Your task to perform on an android device: Add razer nari to the cart on bestbuy Image 0: 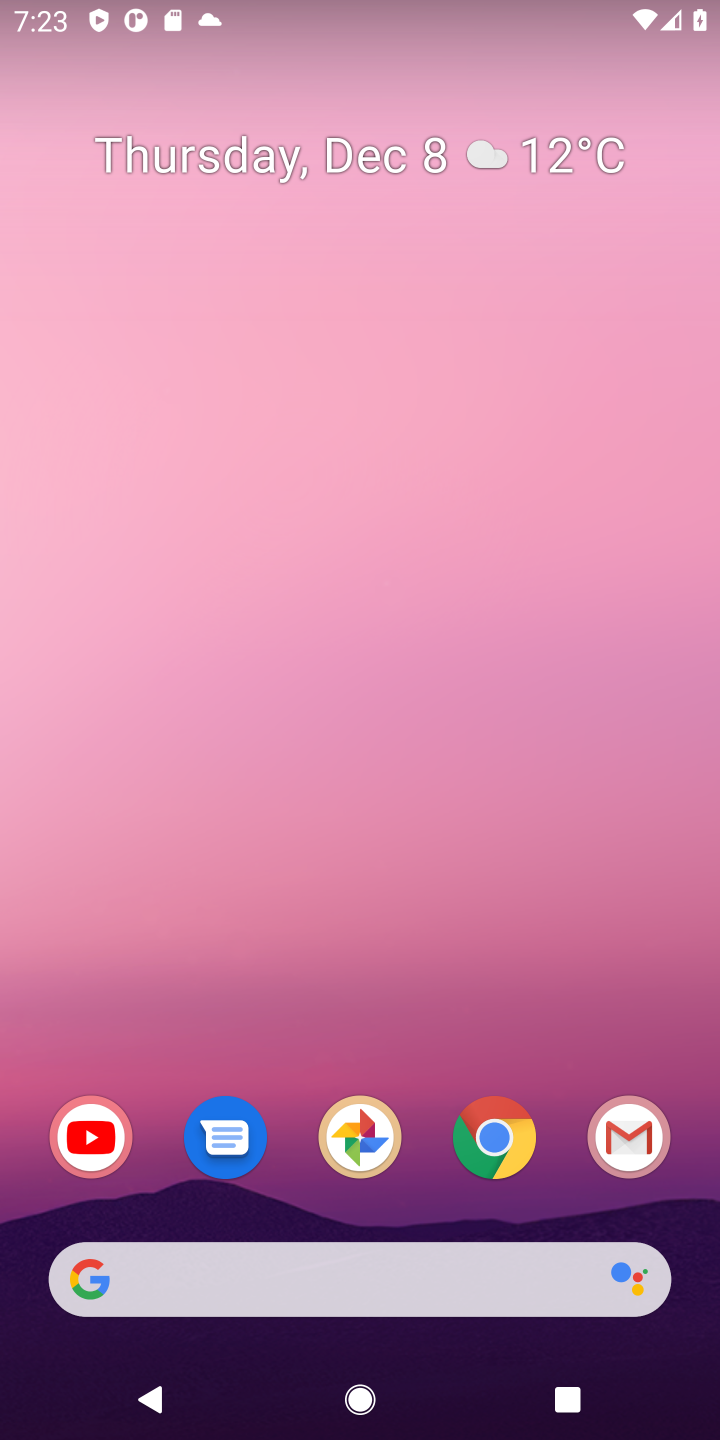
Step 0: click (477, 1140)
Your task to perform on an android device: Add razer nari to the cart on bestbuy Image 1: 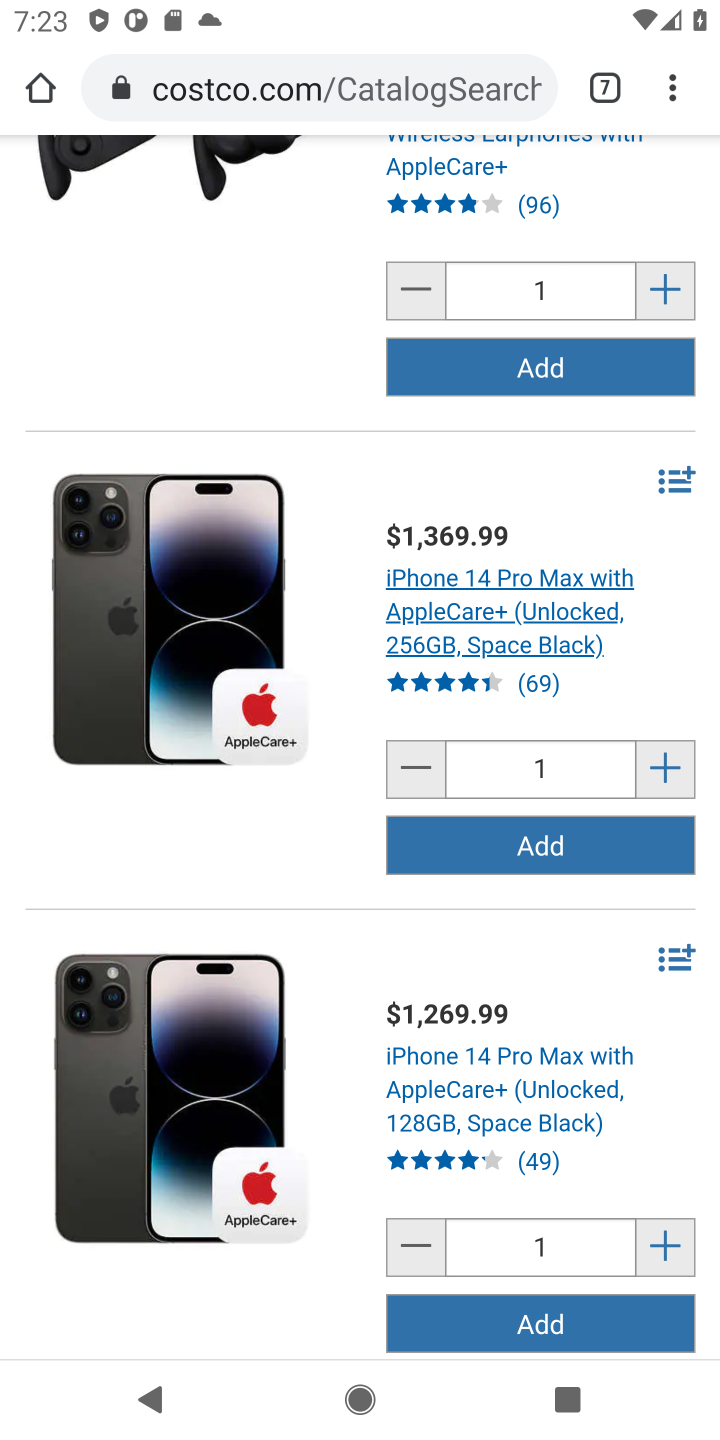
Step 1: click (603, 97)
Your task to perform on an android device: Add razer nari to the cart on bestbuy Image 2: 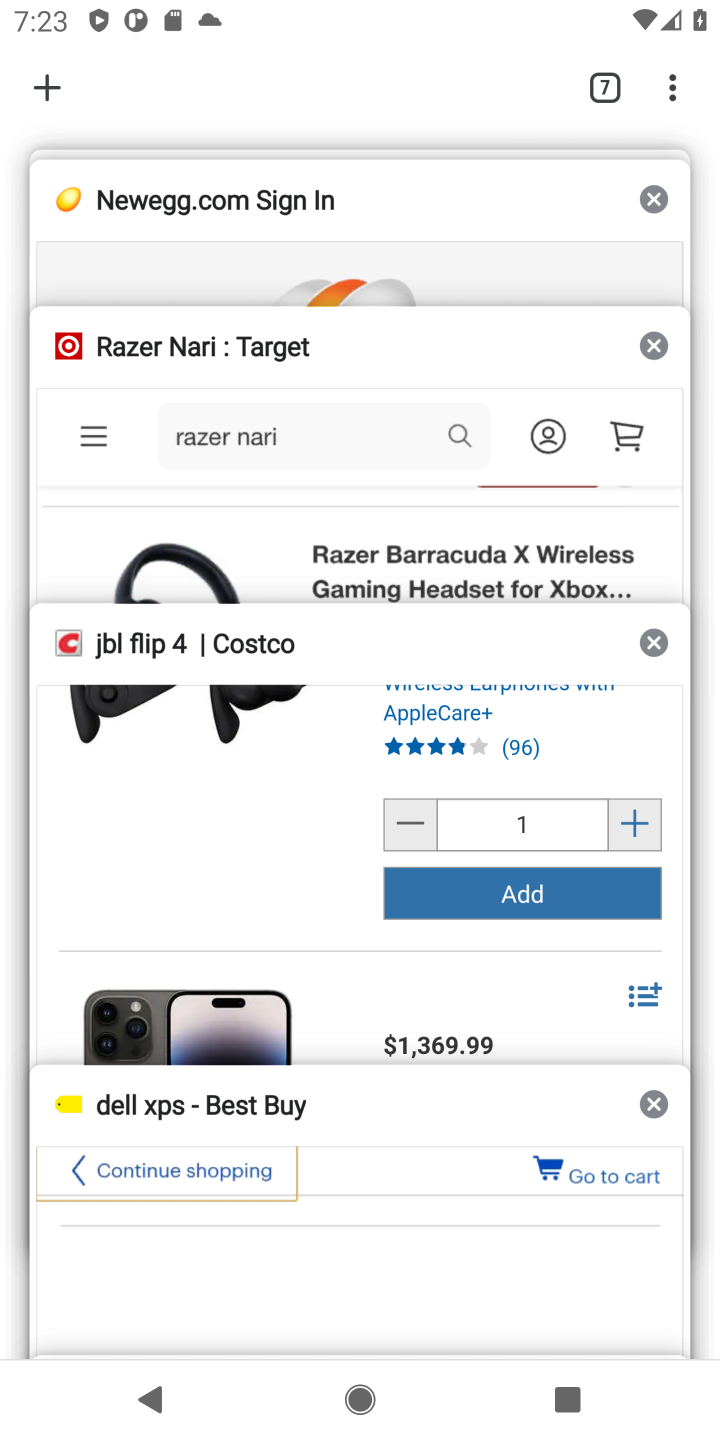
Step 2: click (207, 1143)
Your task to perform on an android device: Add razer nari to the cart on bestbuy Image 3: 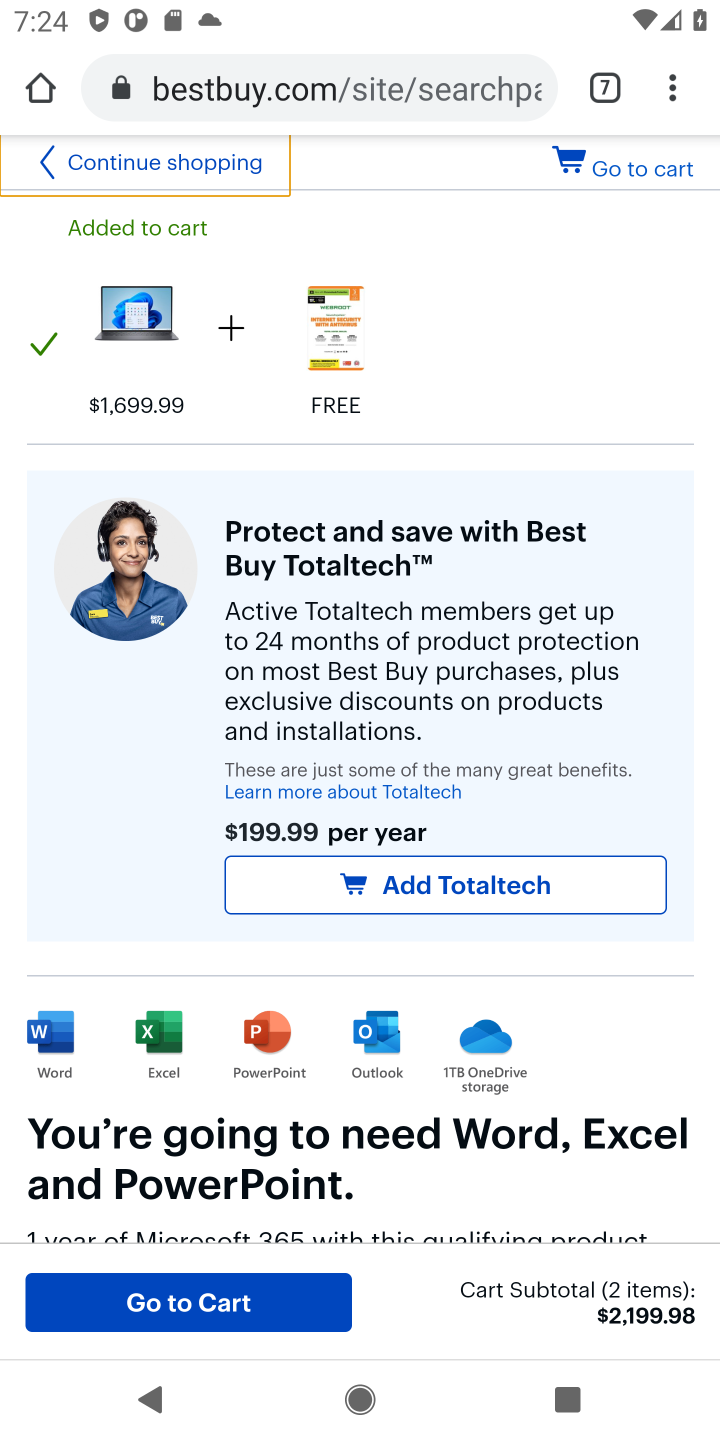
Step 3: click (204, 156)
Your task to perform on an android device: Add razer nari to the cart on bestbuy Image 4: 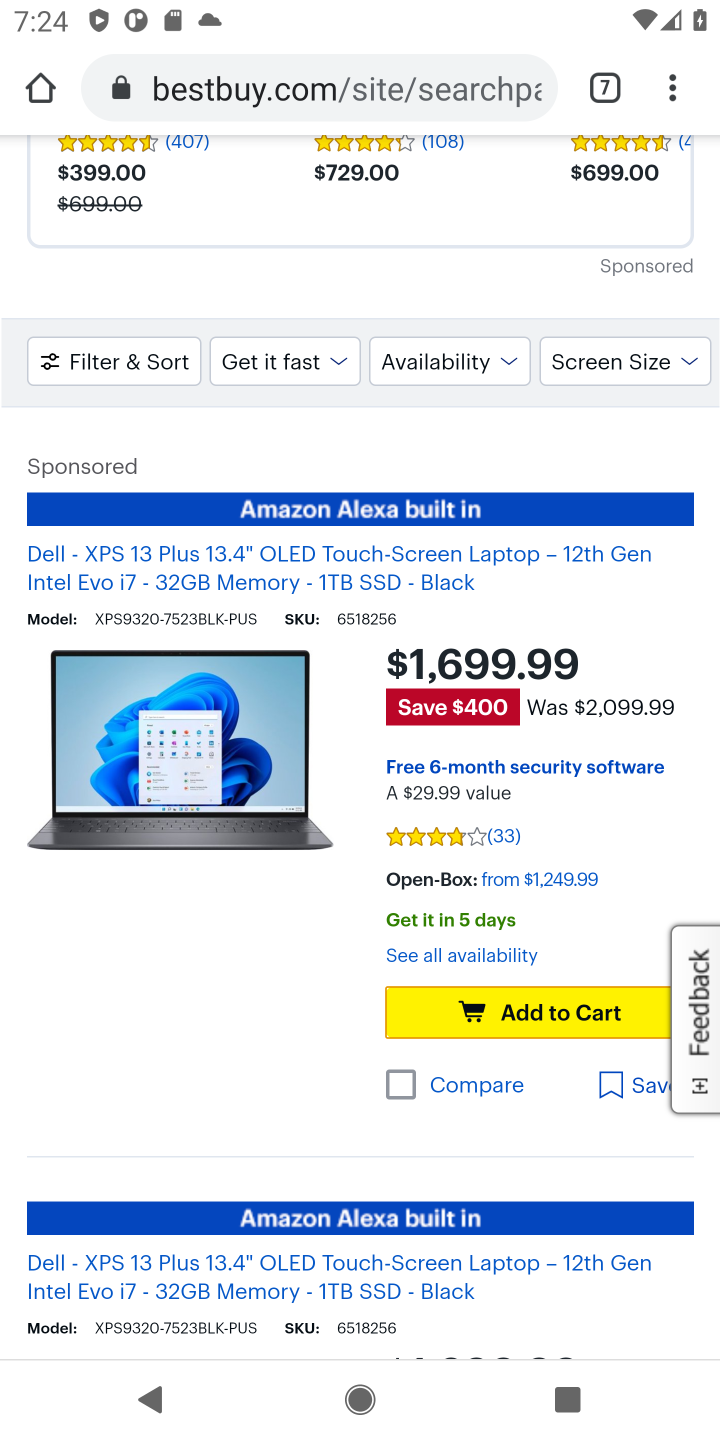
Step 4: drag from (204, 156) to (138, 1351)
Your task to perform on an android device: Add razer nari to the cart on bestbuy Image 5: 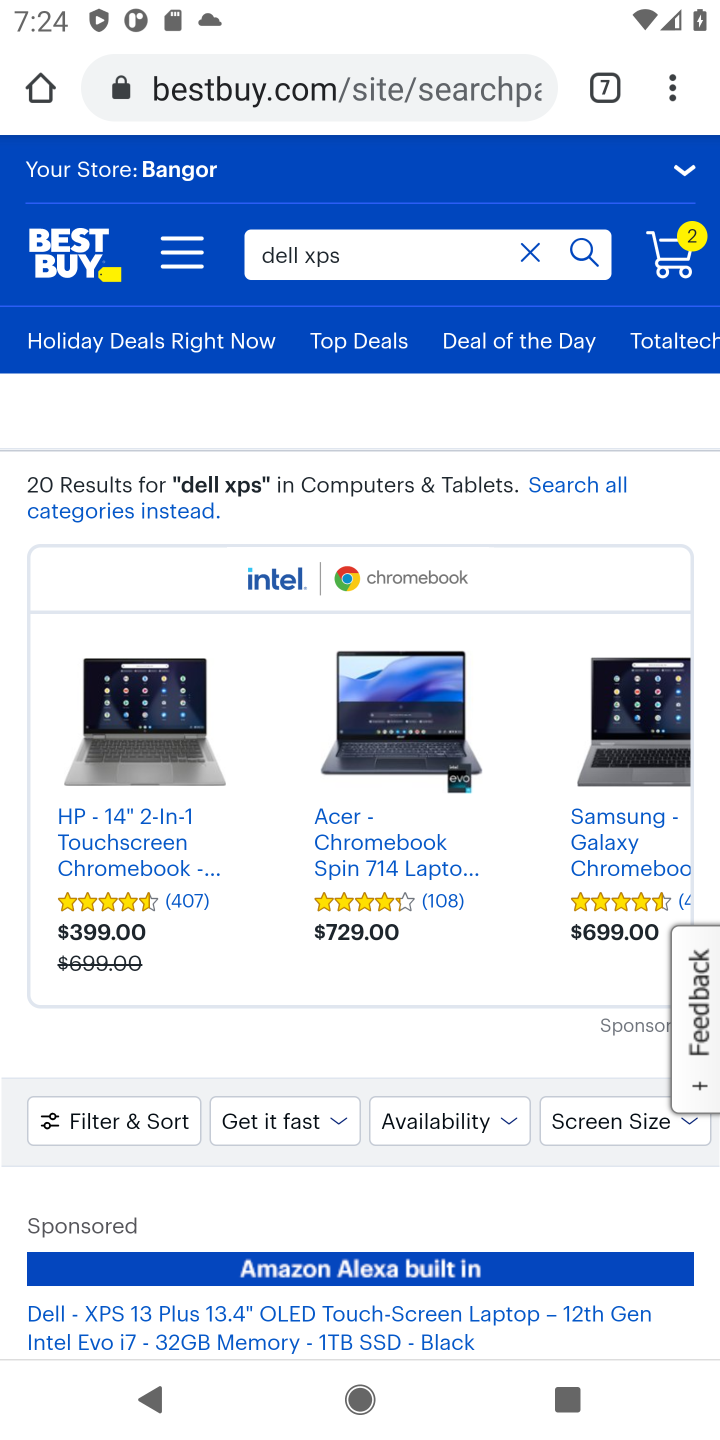
Step 5: click (538, 257)
Your task to perform on an android device: Add razer nari to the cart on bestbuy Image 6: 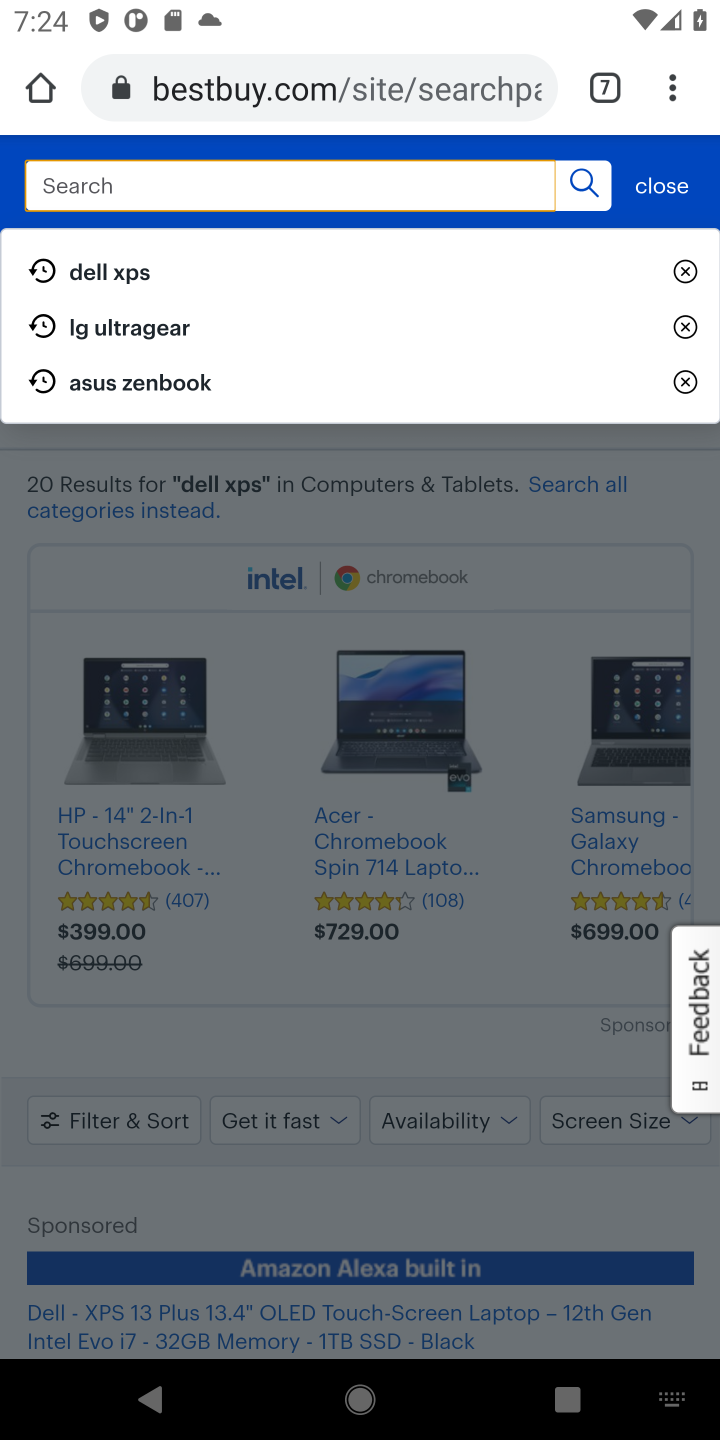
Step 6: type "razer nari "
Your task to perform on an android device: Add razer nari to the cart on bestbuy Image 7: 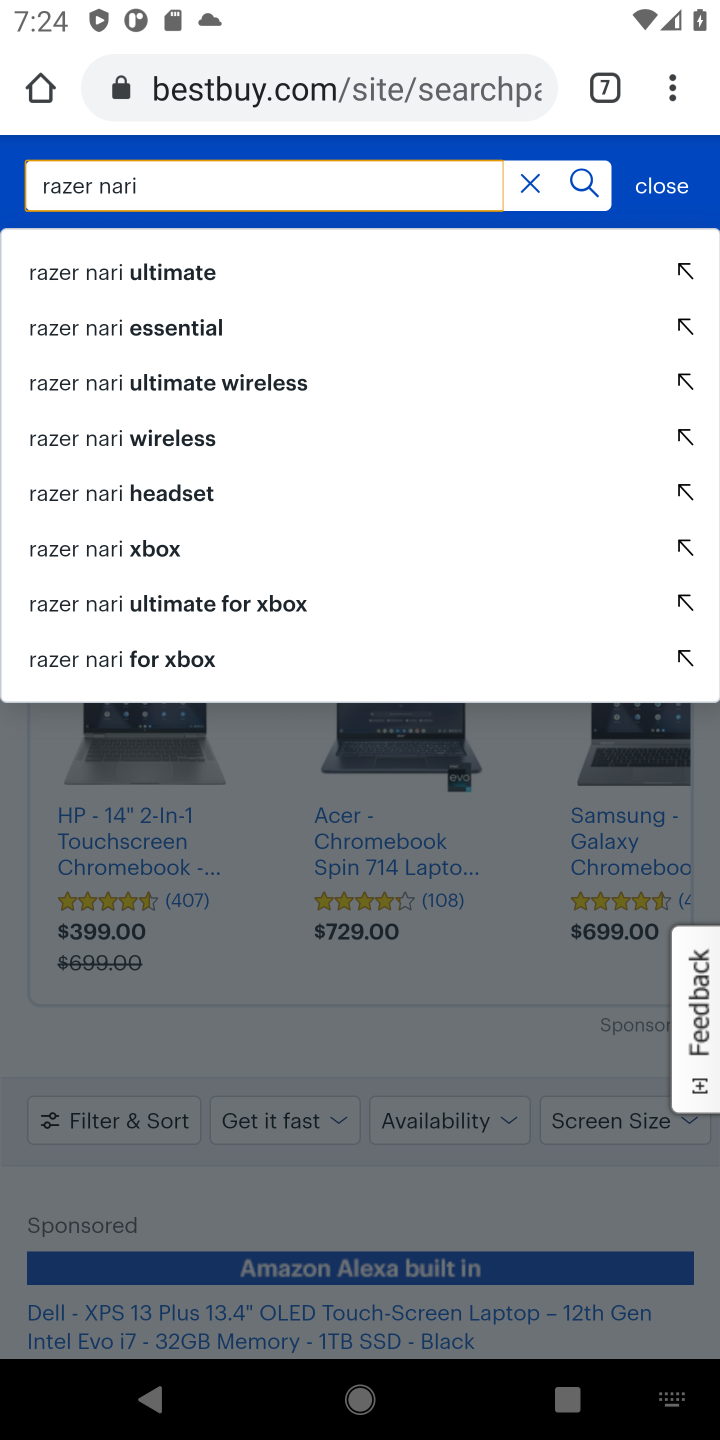
Step 7: click (86, 274)
Your task to perform on an android device: Add razer nari to the cart on bestbuy Image 8: 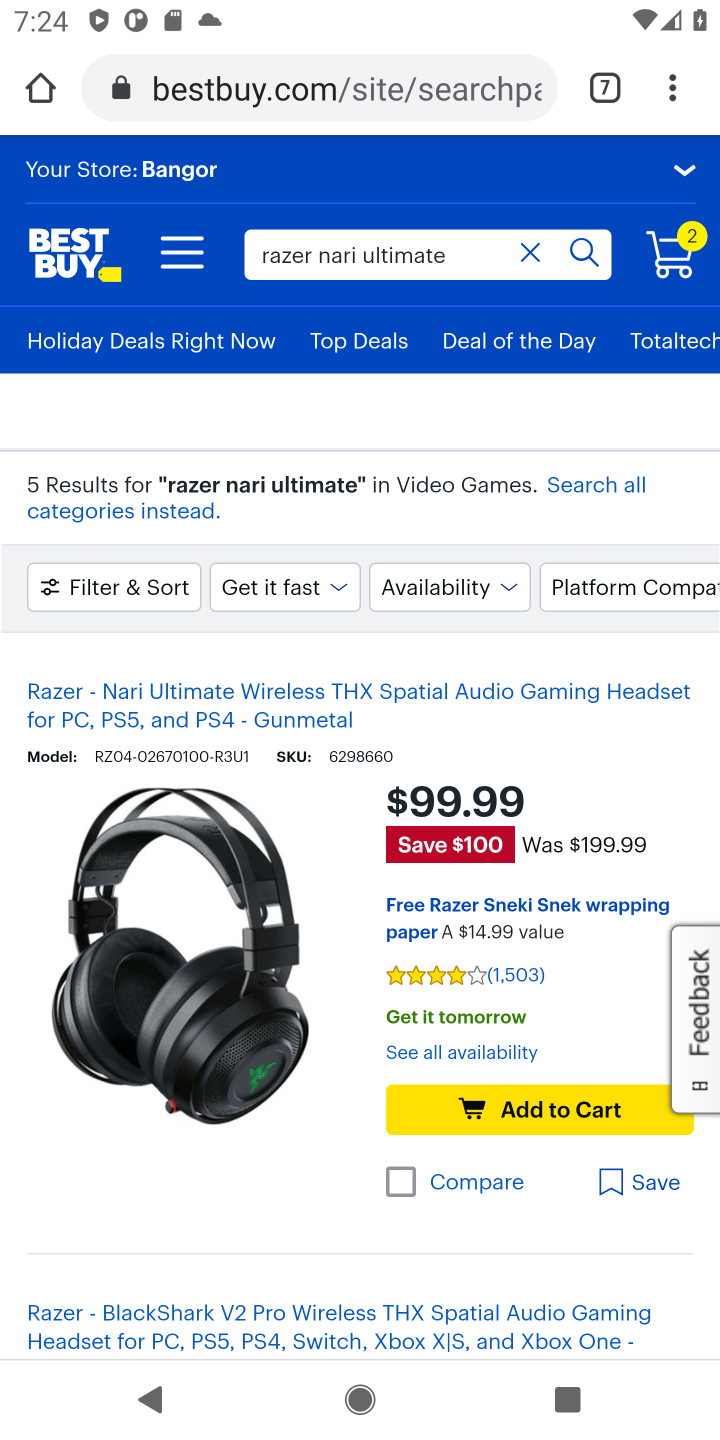
Step 8: click (485, 1105)
Your task to perform on an android device: Add razer nari to the cart on bestbuy Image 9: 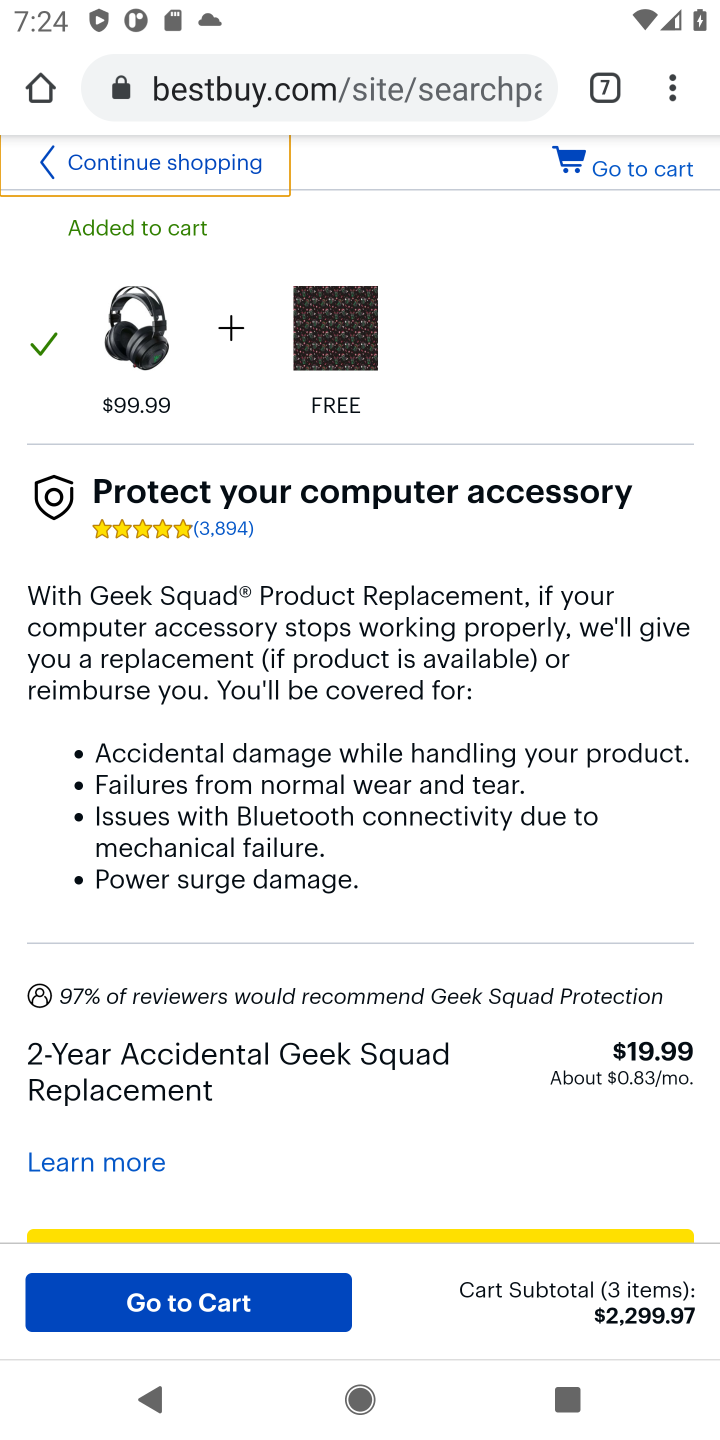
Step 9: task complete